Your task to perform on an android device: check the backup settings in the google photos Image 0: 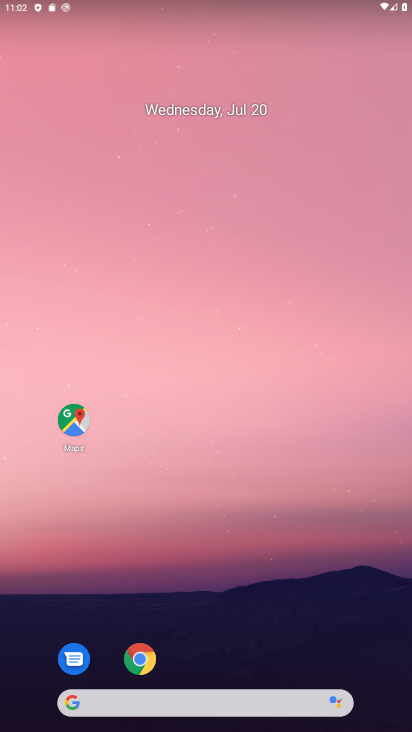
Step 0: drag from (225, 613) to (246, 186)
Your task to perform on an android device: check the backup settings in the google photos Image 1: 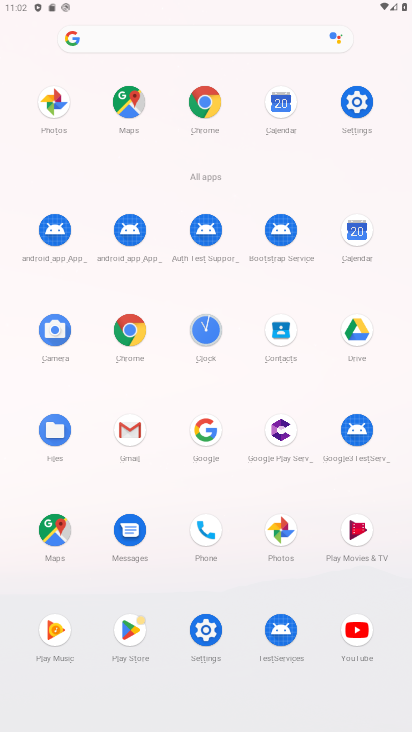
Step 1: click (284, 554)
Your task to perform on an android device: check the backup settings in the google photos Image 2: 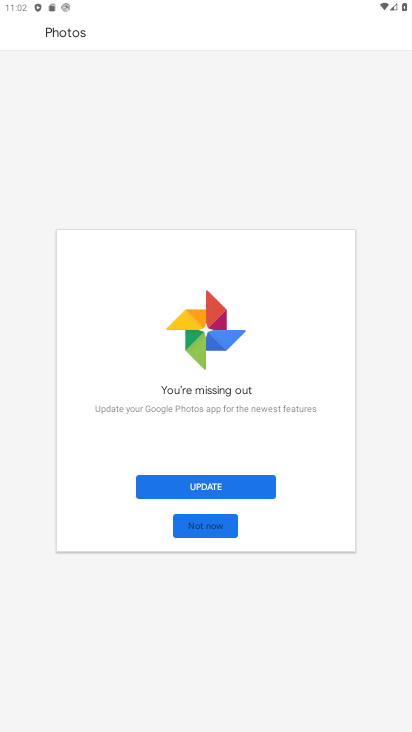
Step 2: click (218, 524)
Your task to perform on an android device: check the backup settings in the google photos Image 3: 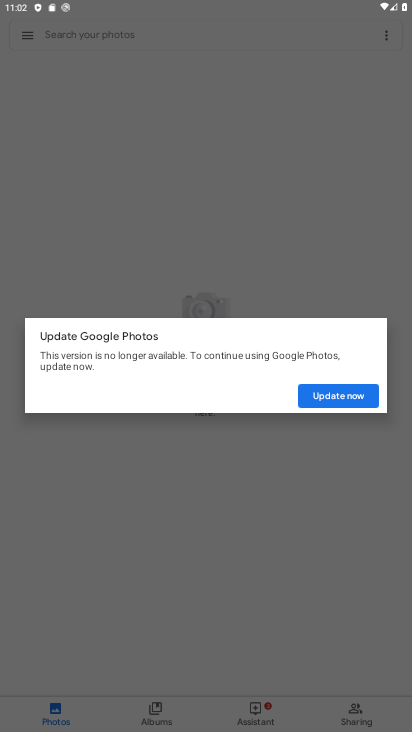
Step 3: click (328, 404)
Your task to perform on an android device: check the backup settings in the google photos Image 4: 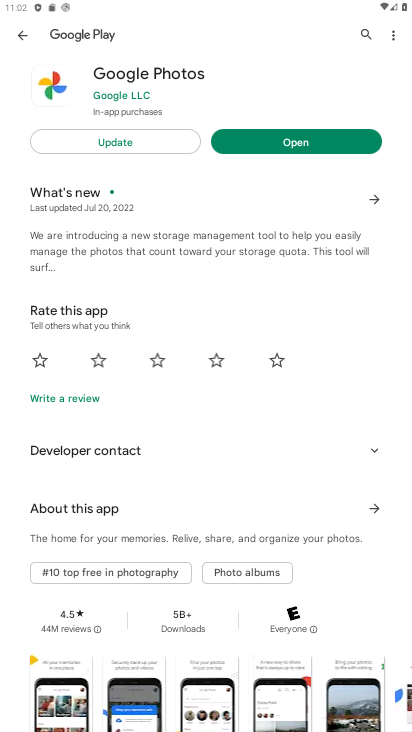
Step 4: click (278, 135)
Your task to perform on an android device: check the backup settings in the google photos Image 5: 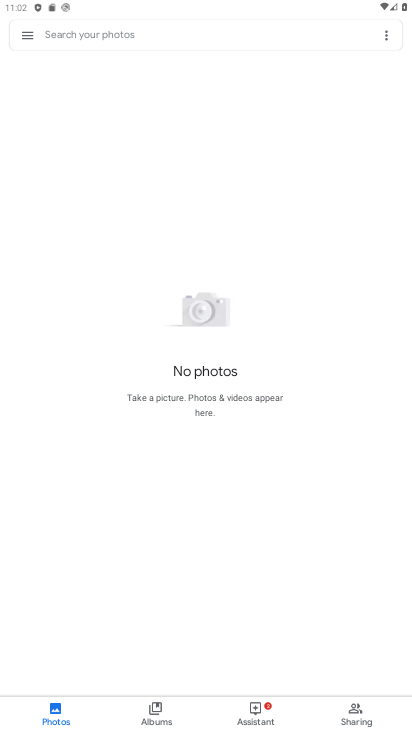
Step 5: click (29, 37)
Your task to perform on an android device: check the backup settings in the google photos Image 6: 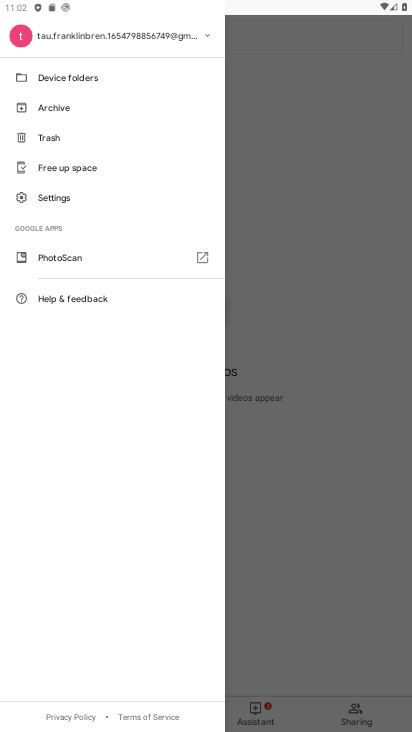
Step 6: click (54, 200)
Your task to perform on an android device: check the backup settings in the google photos Image 7: 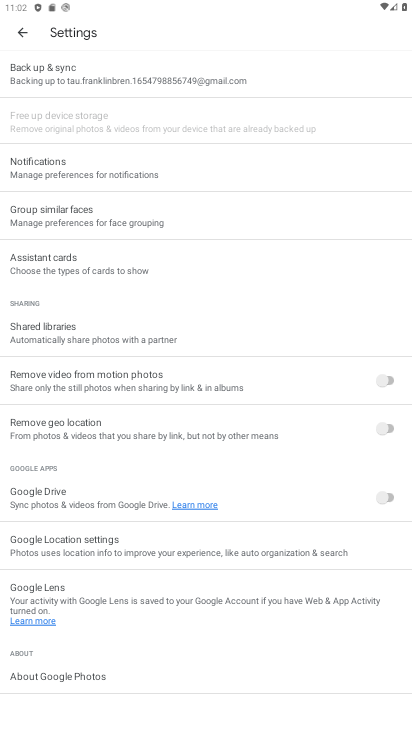
Step 7: click (58, 79)
Your task to perform on an android device: check the backup settings in the google photos Image 8: 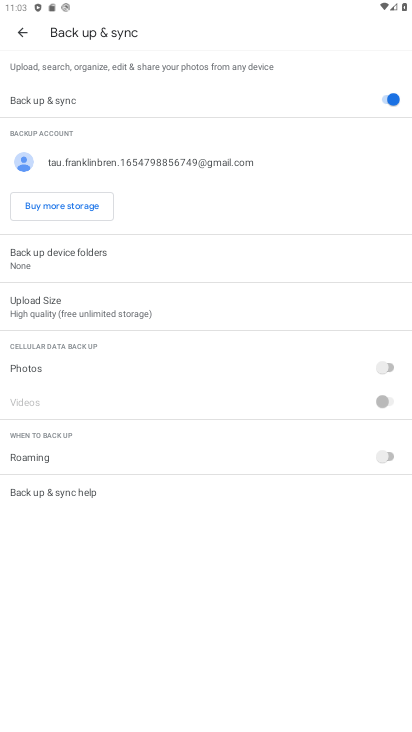
Step 8: task complete